Your task to perform on an android device: check out phone information Image 0: 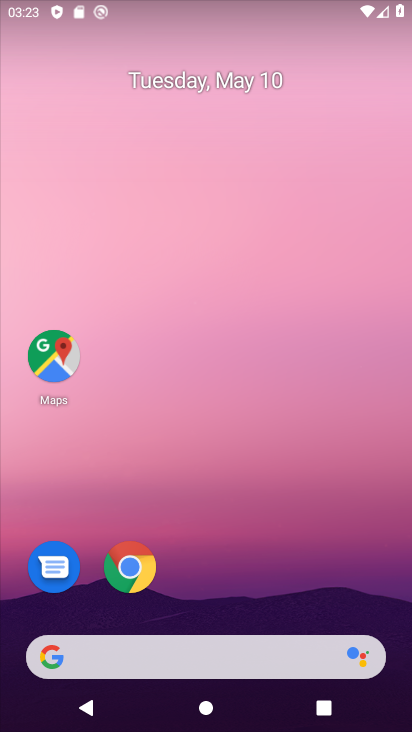
Step 0: drag from (265, 572) to (262, 52)
Your task to perform on an android device: check out phone information Image 1: 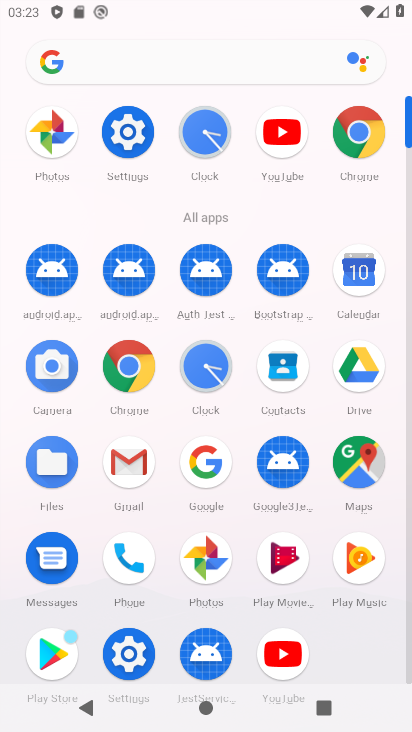
Step 1: click (134, 127)
Your task to perform on an android device: check out phone information Image 2: 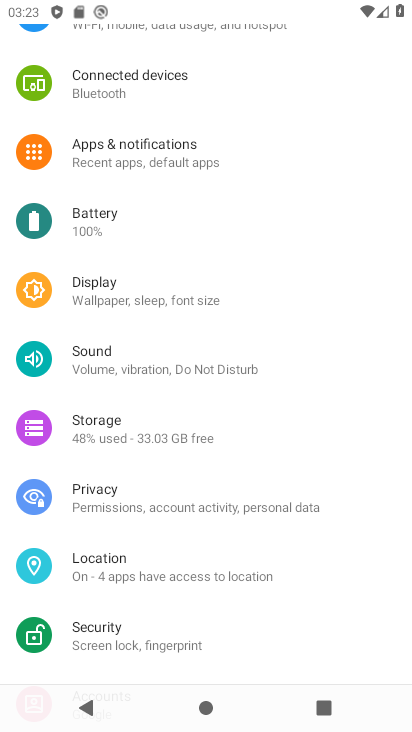
Step 2: drag from (267, 599) to (310, 55)
Your task to perform on an android device: check out phone information Image 3: 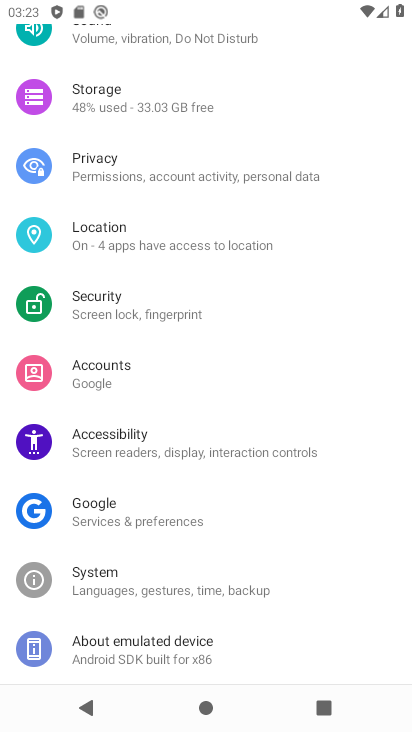
Step 3: click (131, 654)
Your task to perform on an android device: check out phone information Image 4: 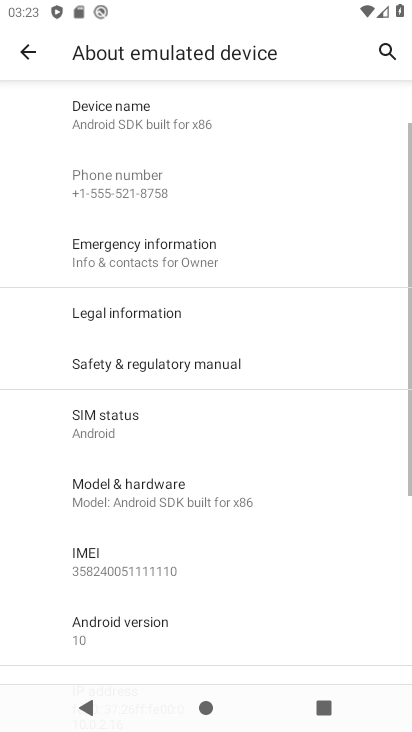
Step 4: task complete